Your task to perform on an android device: change the clock style Image 0: 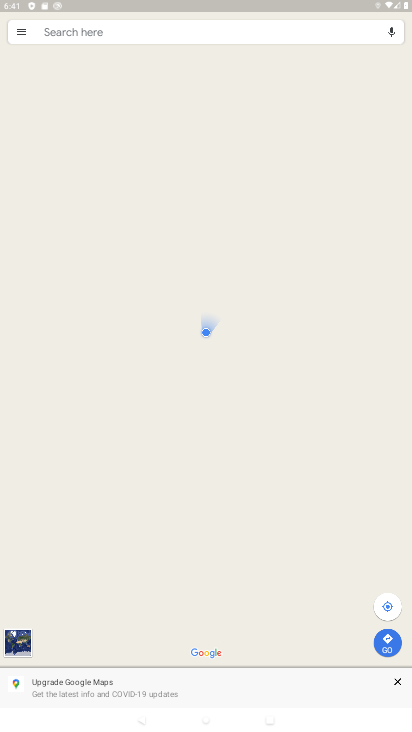
Step 0: press home button
Your task to perform on an android device: change the clock style Image 1: 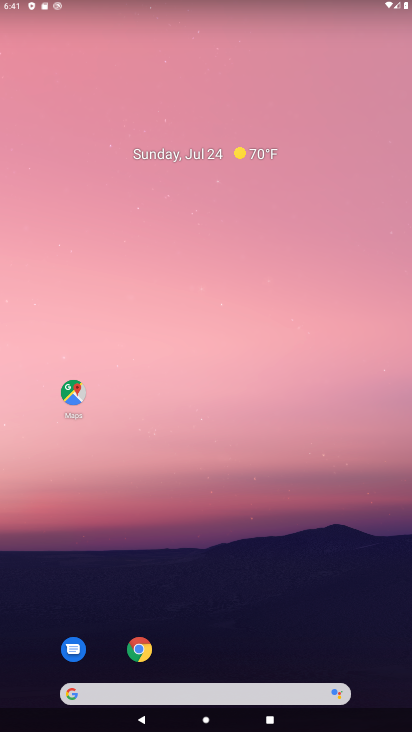
Step 1: drag from (227, 627) to (167, 27)
Your task to perform on an android device: change the clock style Image 2: 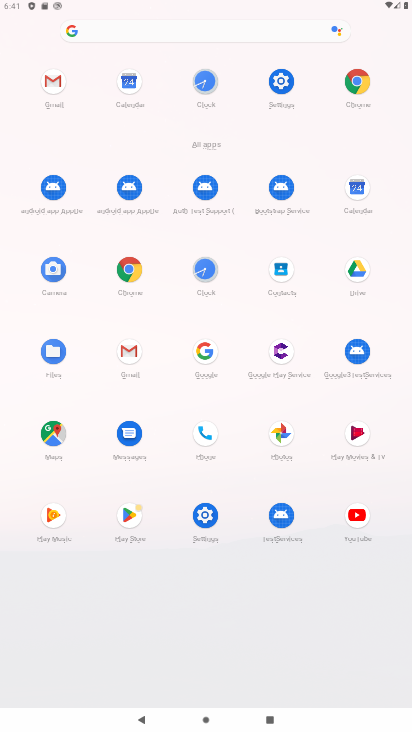
Step 2: click (200, 269)
Your task to perform on an android device: change the clock style Image 3: 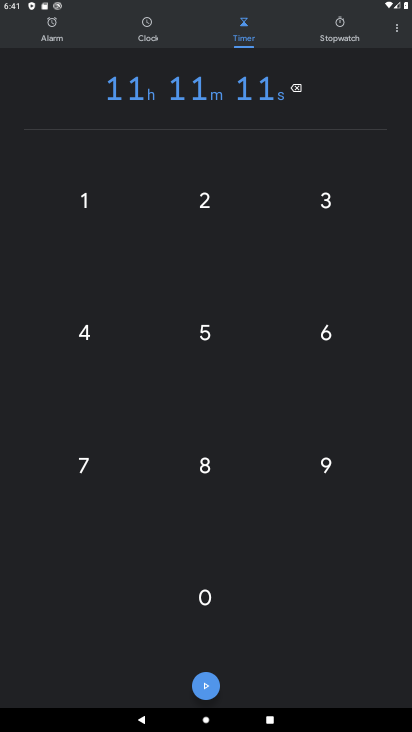
Step 3: click (399, 31)
Your task to perform on an android device: change the clock style Image 4: 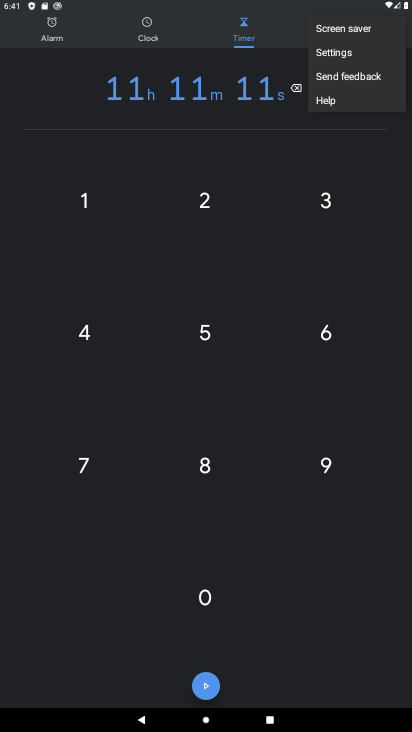
Step 4: click (341, 50)
Your task to perform on an android device: change the clock style Image 5: 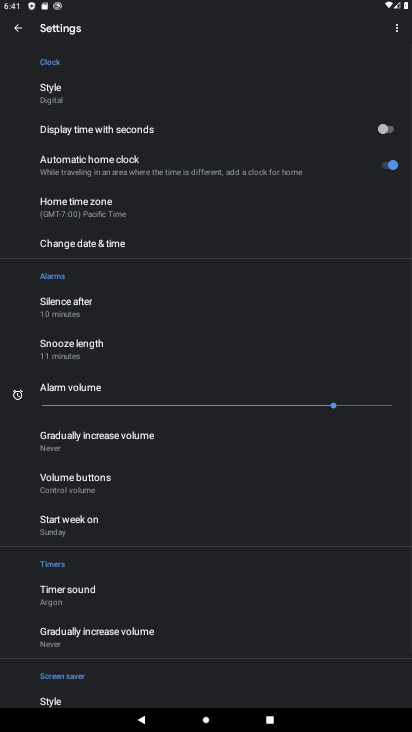
Step 5: click (50, 96)
Your task to perform on an android device: change the clock style Image 6: 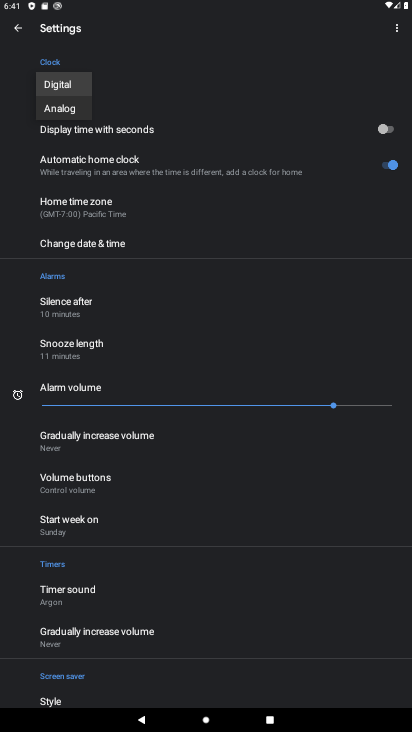
Step 6: click (49, 105)
Your task to perform on an android device: change the clock style Image 7: 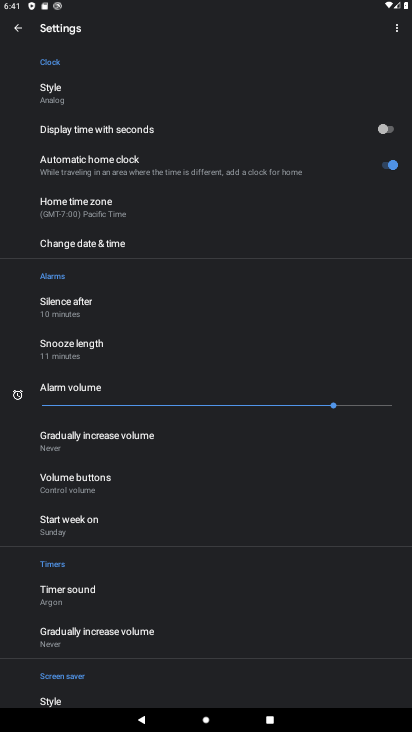
Step 7: task complete